Your task to perform on an android device: move a message to another label in the gmail app Image 0: 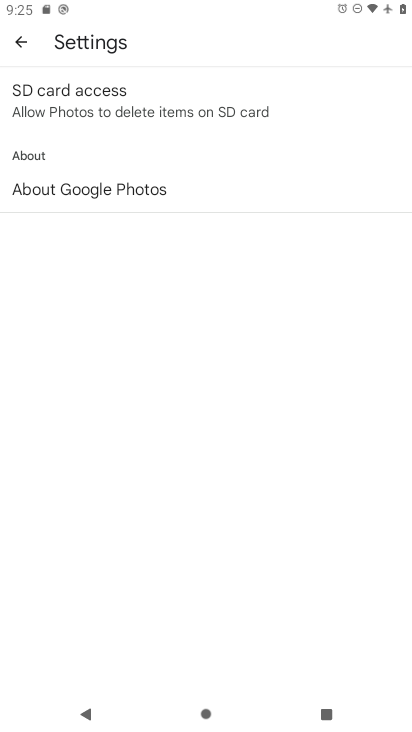
Step 0: press home button
Your task to perform on an android device: move a message to another label in the gmail app Image 1: 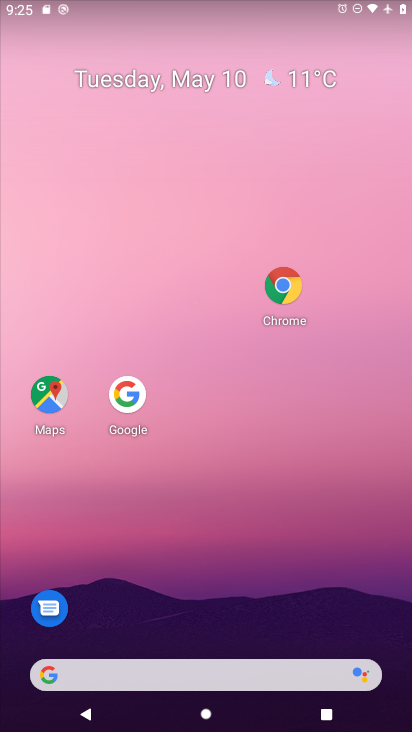
Step 1: drag from (125, 668) to (243, 188)
Your task to perform on an android device: move a message to another label in the gmail app Image 2: 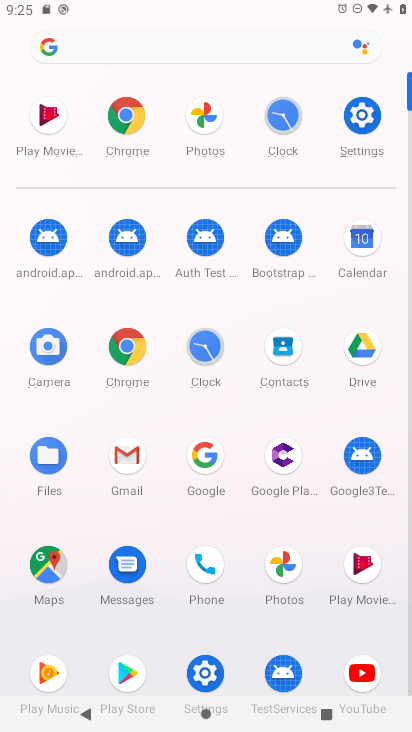
Step 2: click (131, 459)
Your task to perform on an android device: move a message to another label in the gmail app Image 3: 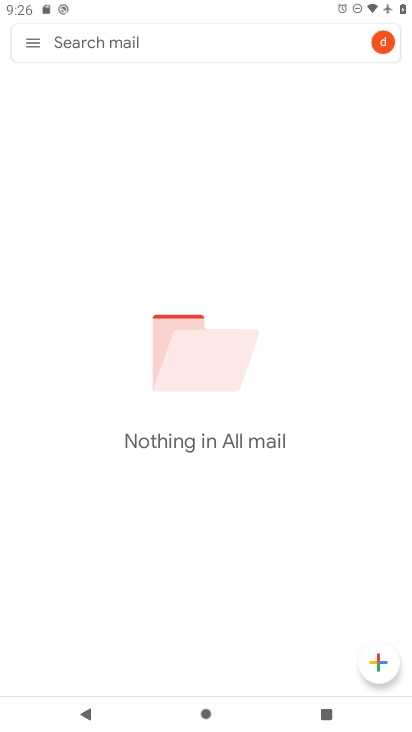
Step 3: task complete